Your task to perform on an android device: Go to network settings Image 0: 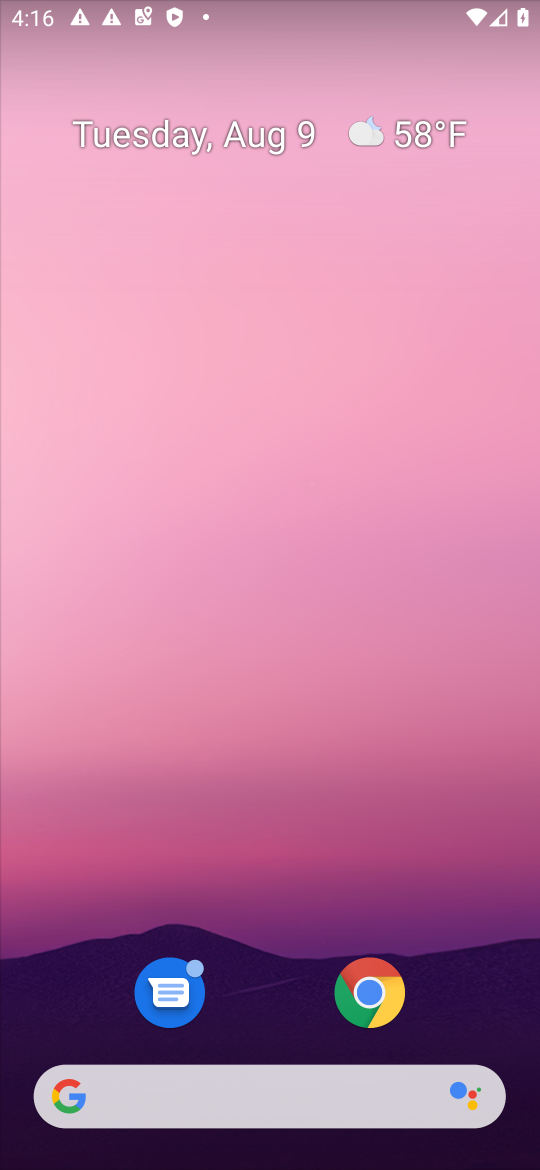
Step 0: drag from (202, 1058) to (290, 100)
Your task to perform on an android device: Go to network settings Image 1: 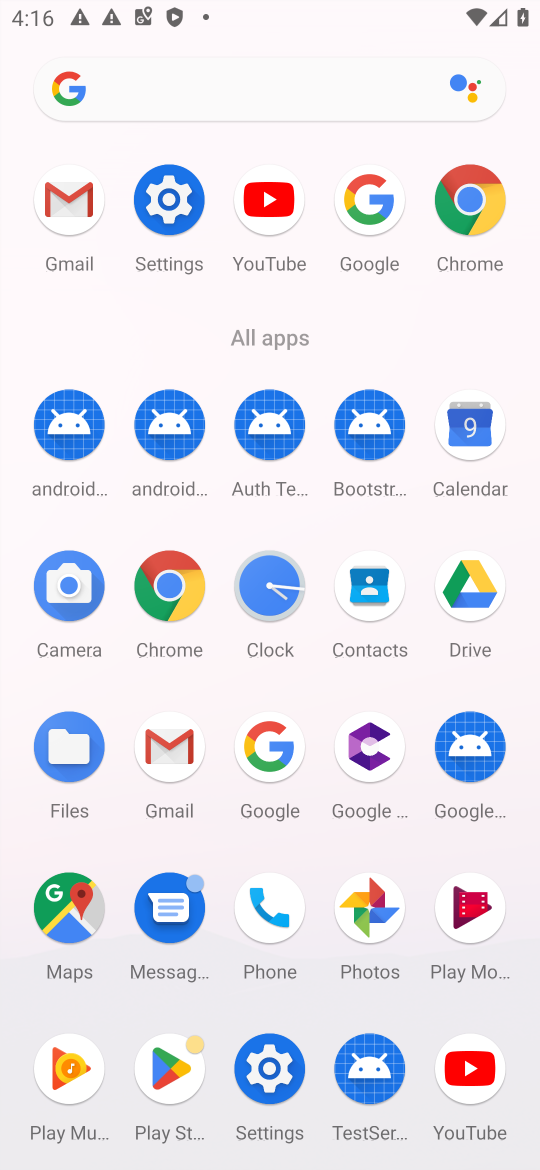
Step 1: click (159, 190)
Your task to perform on an android device: Go to network settings Image 2: 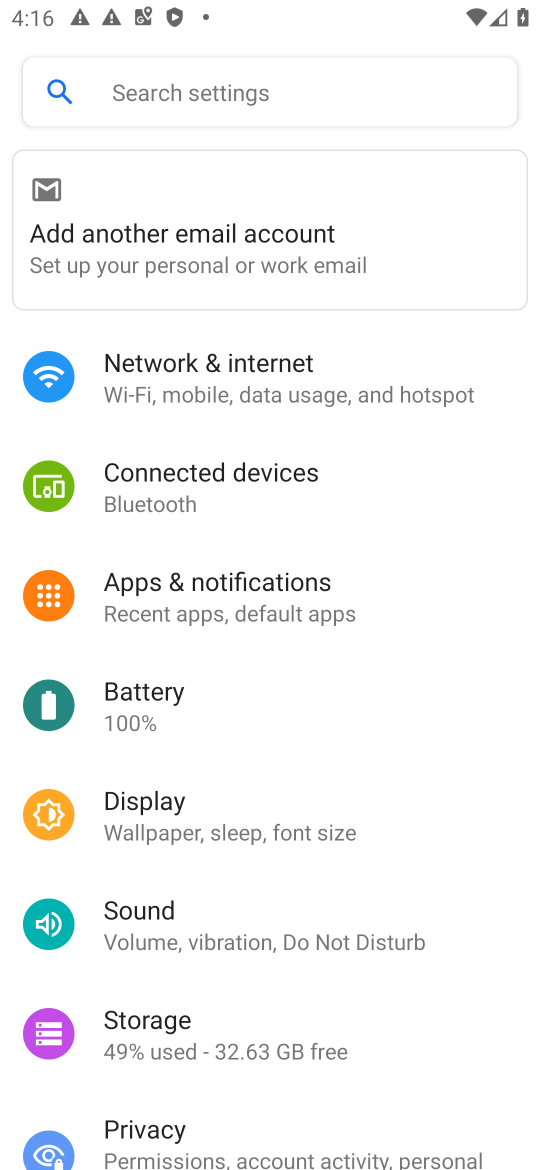
Step 2: click (208, 394)
Your task to perform on an android device: Go to network settings Image 3: 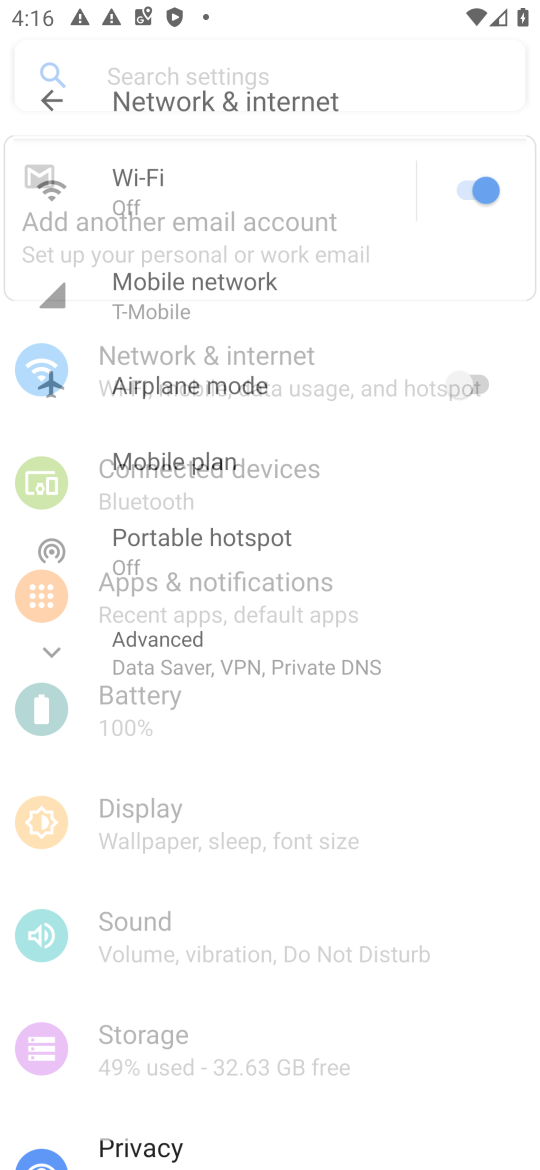
Step 3: task complete